Your task to perform on an android device: check data usage Image 0: 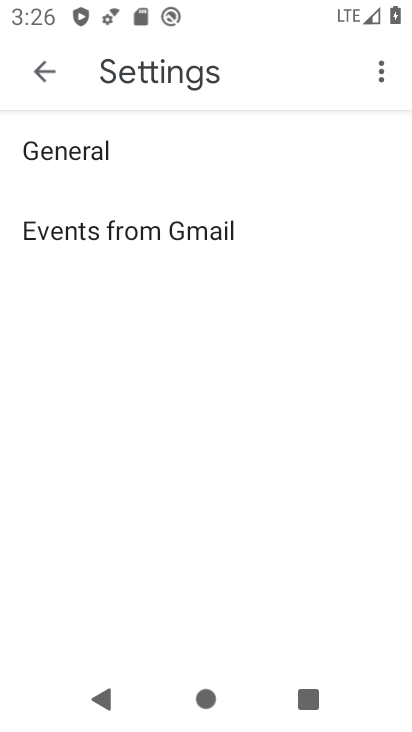
Step 0: press home button
Your task to perform on an android device: check data usage Image 1: 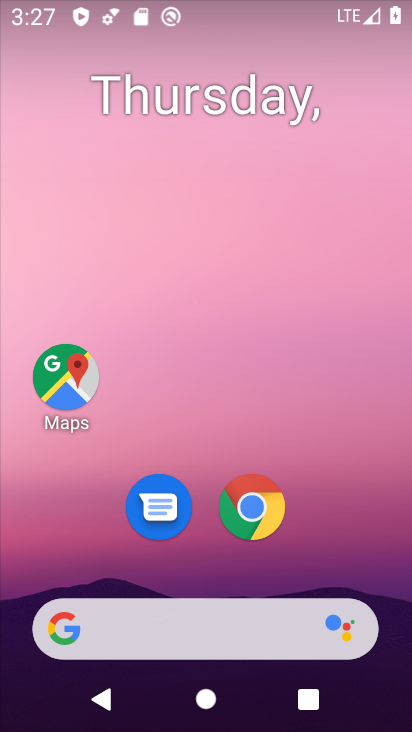
Step 1: drag from (366, 551) to (335, 126)
Your task to perform on an android device: check data usage Image 2: 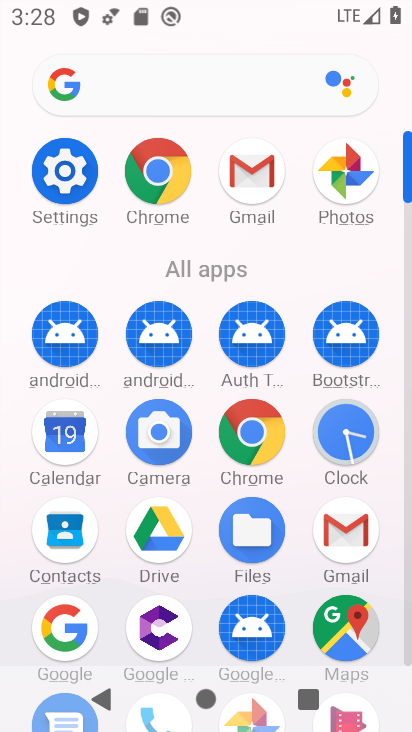
Step 2: drag from (320, 11) to (316, 521)
Your task to perform on an android device: check data usage Image 3: 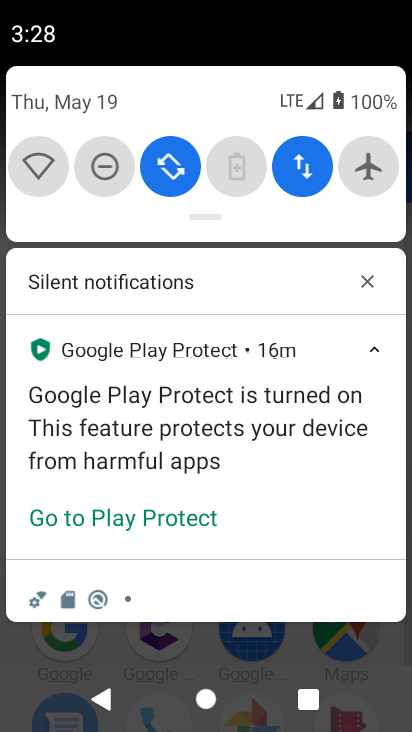
Step 3: click (311, 174)
Your task to perform on an android device: check data usage Image 4: 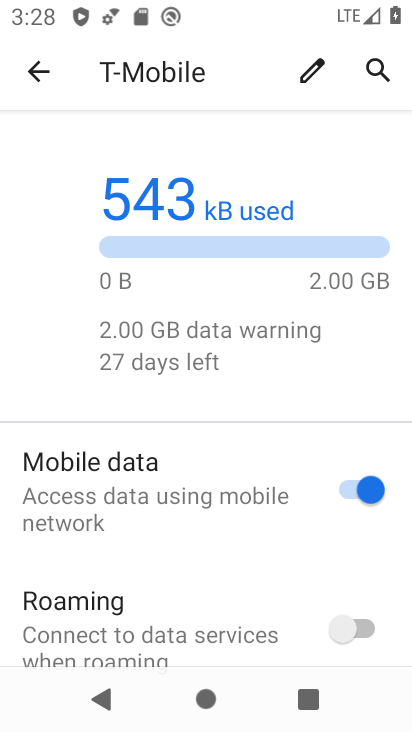
Step 4: task complete